Your task to perform on an android device: toggle notification dots Image 0: 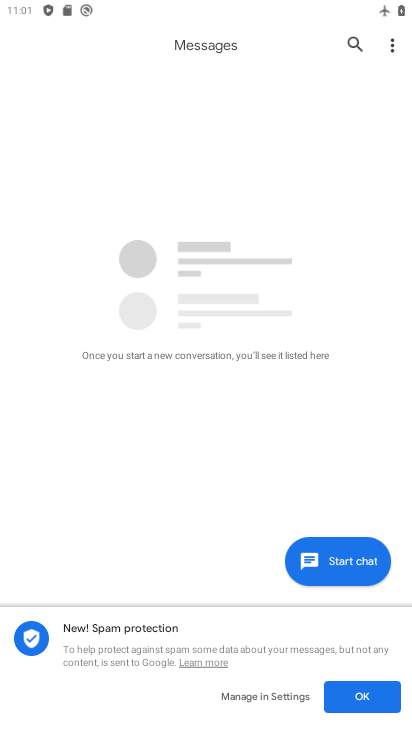
Step 0: press home button
Your task to perform on an android device: toggle notification dots Image 1: 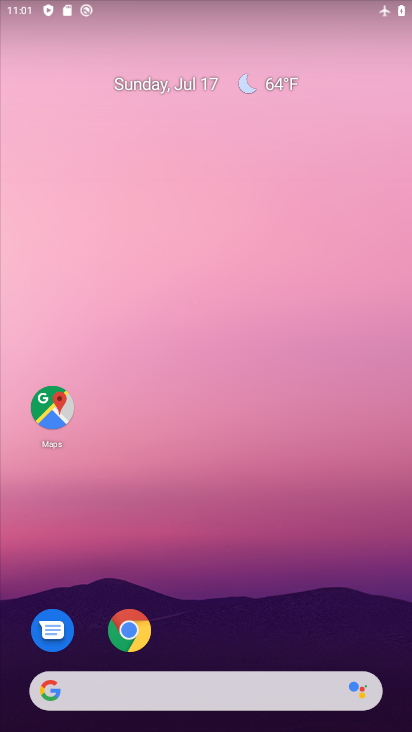
Step 1: drag from (358, 635) to (289, 168)
Your task to perform on an android device: toggle notification dots Image 2: 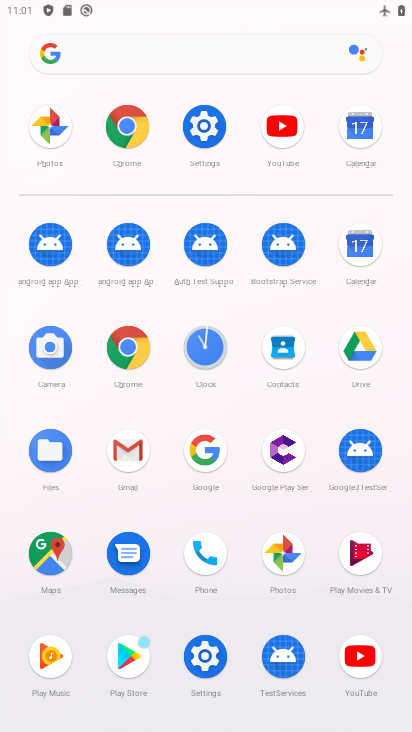
Step 2: click (204, 658)
Your task to perform on an android device: toggle notification dots Image 3: 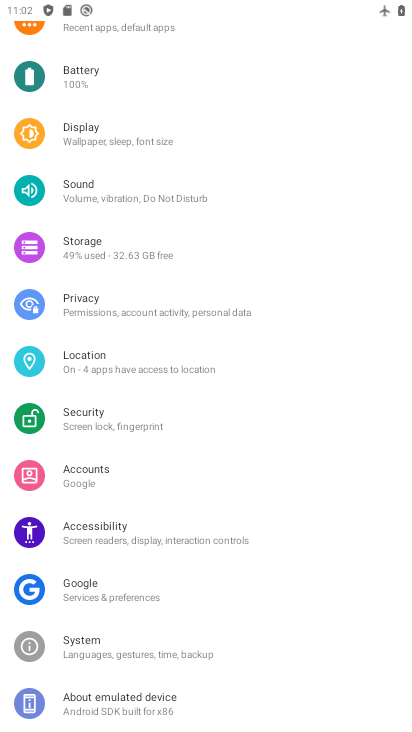
Step 3: drag from (239, 126) to (262, 473)
Your task to perform on an android device: toggle notification dots Image 4: 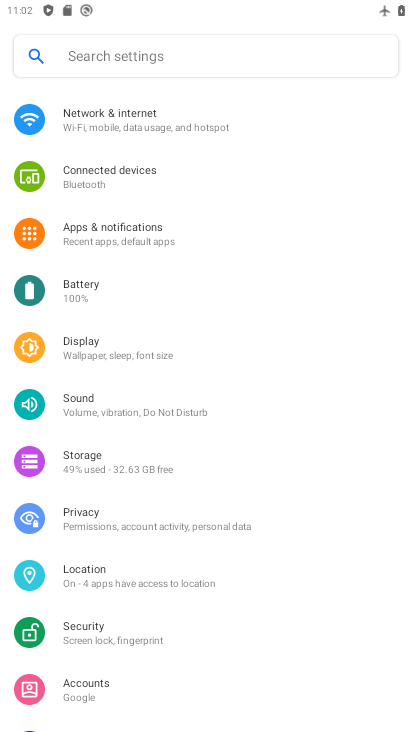
Step 4: click (103, 226)
Your task to perform on an android device: toggle notification dots Image 5: 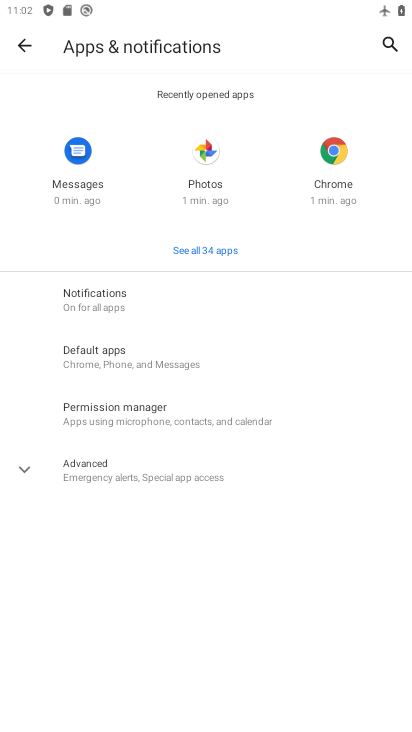
Step 5: click (83, 303)
Your task to perform on an android device: toggle notification dots Image 6: 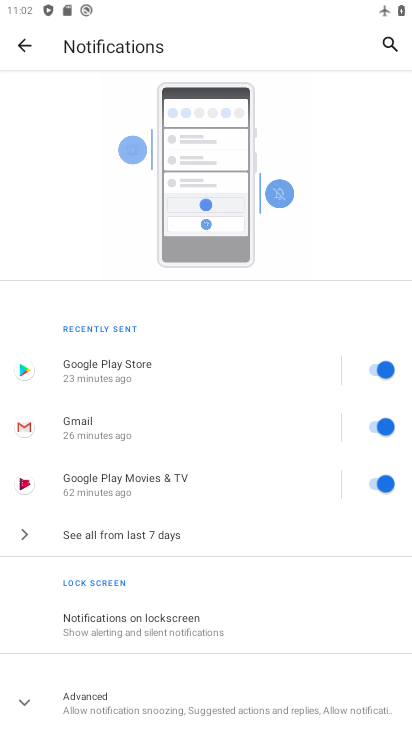
Step 6: click (13, 703)
Your task to perform on an android device: toggle notification dots Image 7: 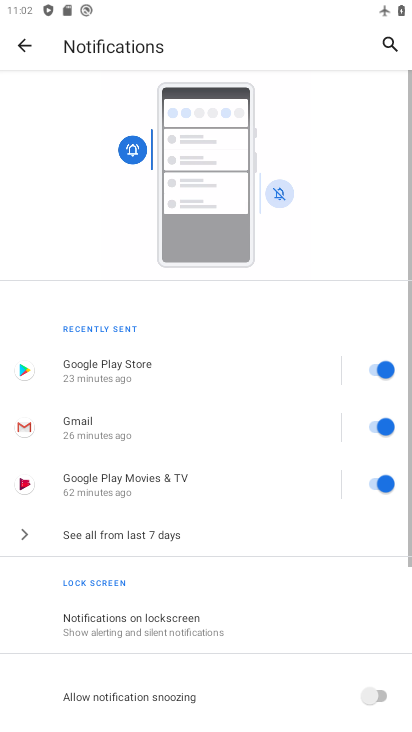
Step 7: drag from (295, 664) to (288, 229)
Your task to perform on an android device: toggle notification dots Image 8: 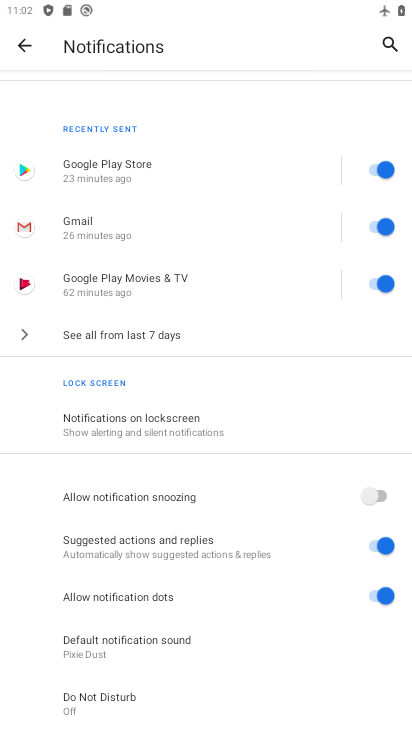
Step 8: click (369, 595)
Your task to perform on an android device: toggle notification dots Image 9: 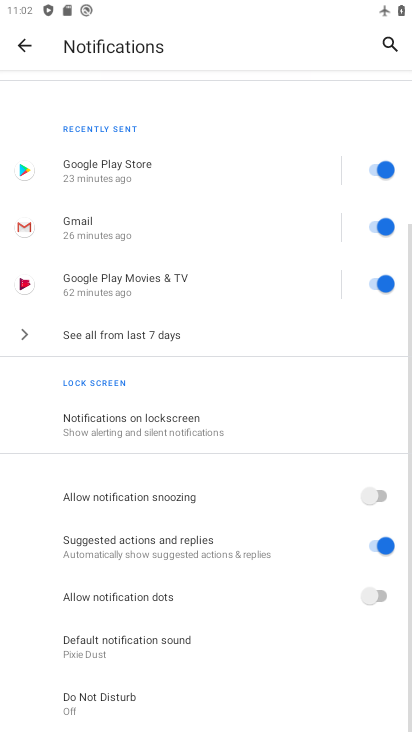
Step 9: task complete